Your task to perform on an android device: empty trash in the gmail app Image 0: 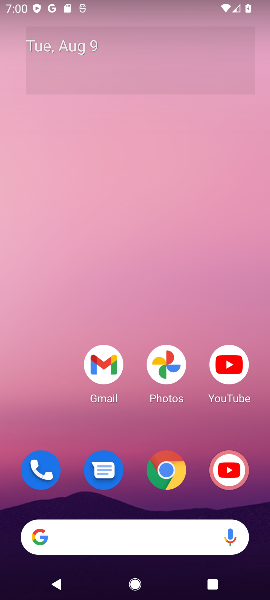
Step 0: click (93, 577)
Your task to perform on an android device: empty trash in the gmail app Image 1: 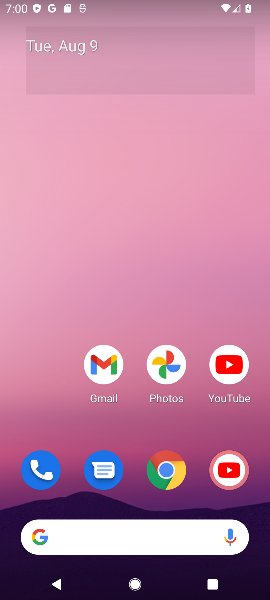
Step 1: click (103, 366)
Your task to perform on an android device: empty trash in the gmail app Image 2: 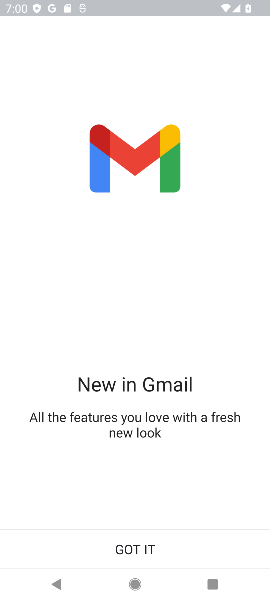
Step 2: click (158, 549)
Your task to perform on an android device: empty trash in the gmail app Image 3: 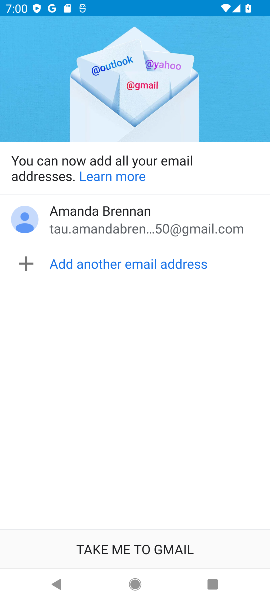
Step 3: click (136, 550)
Your task to perform on an android device: empty trash in the gmail app Image 4: 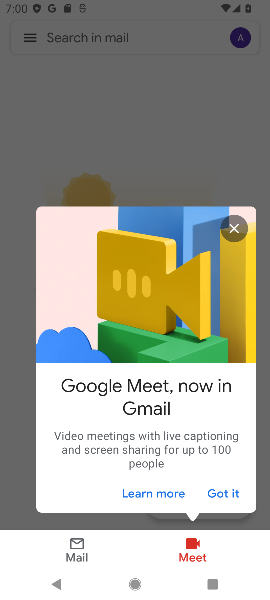
Step 4: click (35, 33)
Your task to perform on an android device: empty trash in the gmail app Image 5: 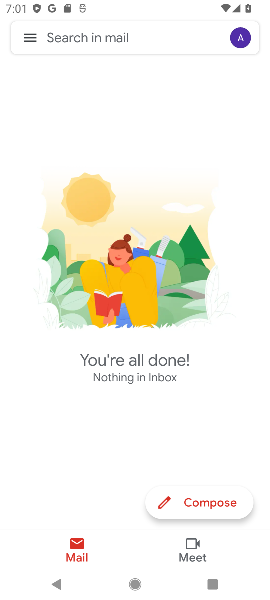
Step 5: click (30, 40)
Your task to perform on an android device: empty trash in the gmail app Image 6: 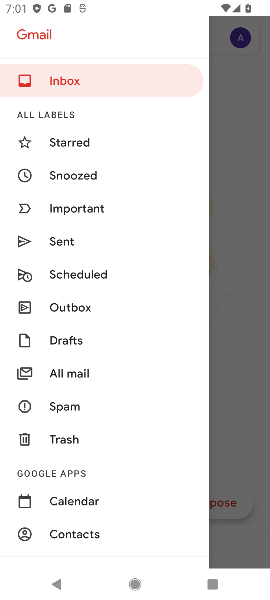
Step 6: click (78, 445)
Your task to perform on an android device: empty trash in the gmail app Image 7: 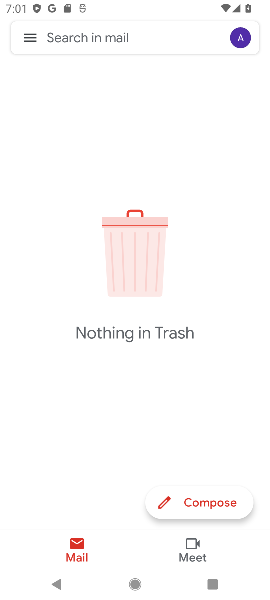
Step 7: task complete